Your task to perform on an android device: Go to Yahoo.com Image 0: 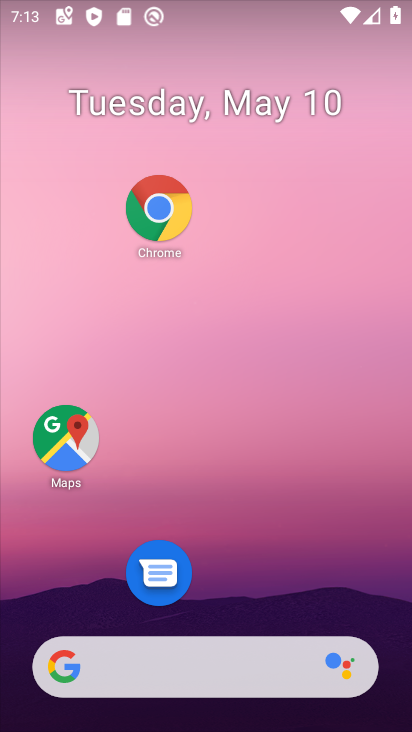
Step 0: drag from (276, 684) to (225, 252)
Your task to perform on an android device: Go to Yahoo.com Image 1: 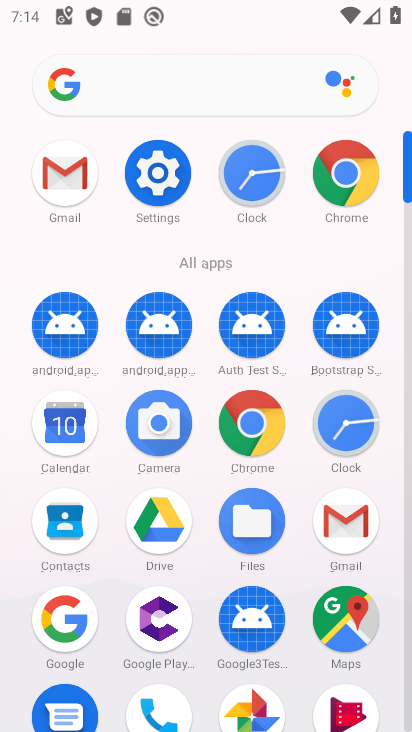
Step 1: click (335, 181)
Your task to perform on an android device: Go to Yahoo.com Image 2: 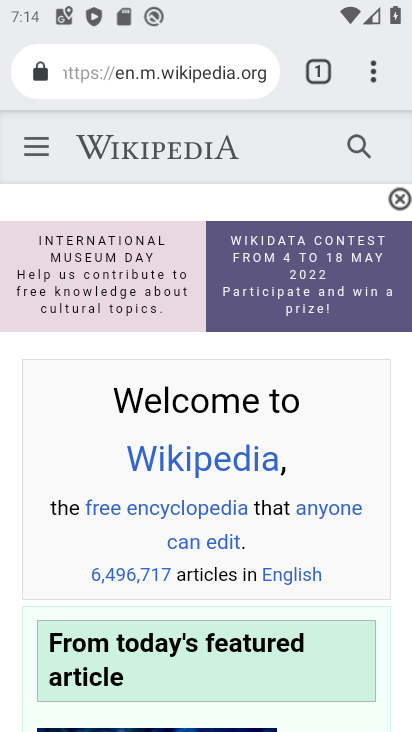
Step 2: click (312, 74)
Your task to perform on an android device: Go to Yahoo.com Image 3: 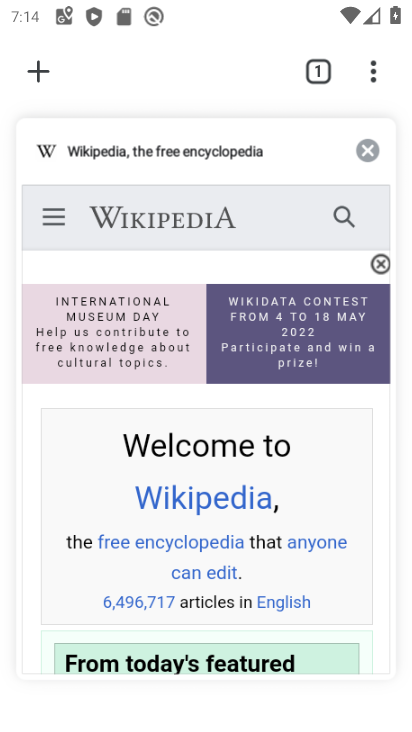
Step 3: click (43, 70)
Your task to perform on an android device: Go to Yahoo.com Image 4: 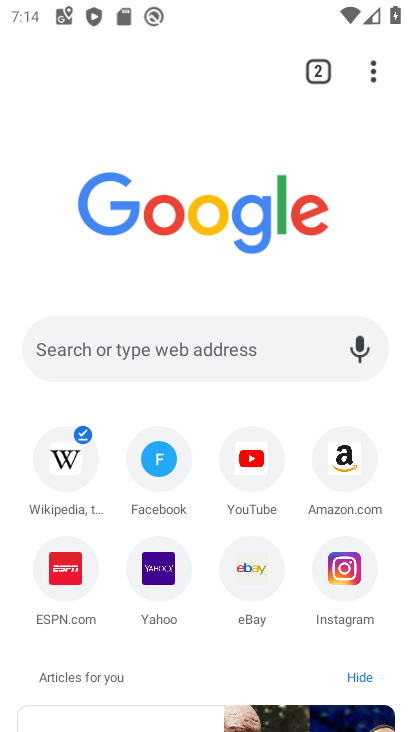
Step 4: click (155, 567)
Your task to perform on an android device: Go to Yahoo.com Image 5: 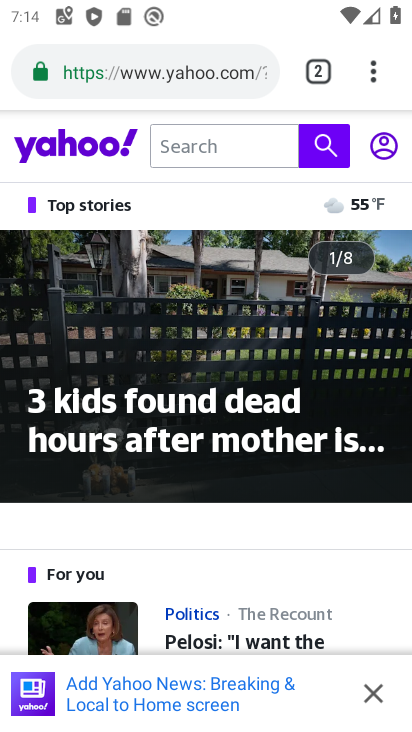
Step 5: task complete